Your task to perform on an android device: What's on my calendar today? Image 0: 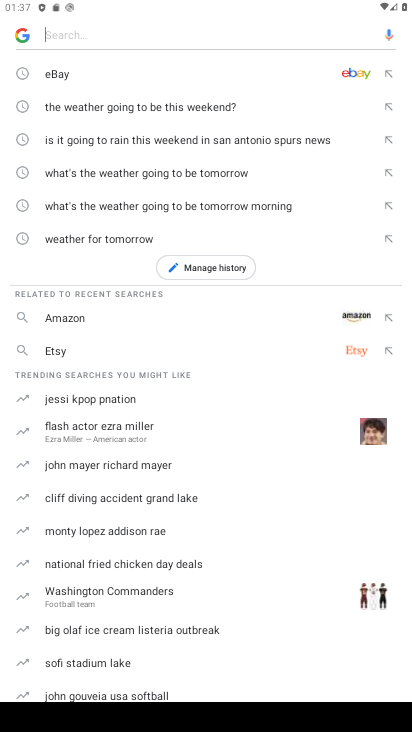
Step 0: press home button
Your task to perform on an android device: What's on my calendar today? Image 1: 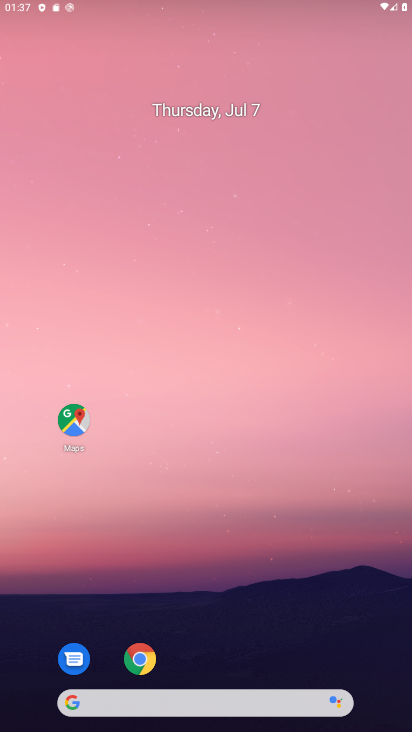
Step 1: drag from (230, 641) to (281, 113)
Your task to perform on an android device: What's on my calendar today? Image 2: 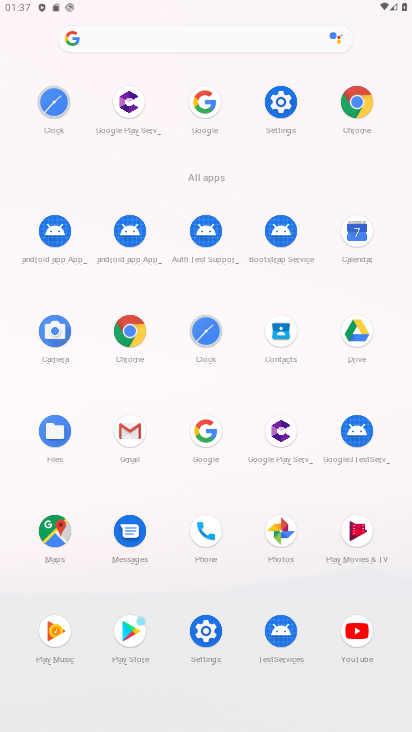
Step 2: click (354, 234)
Your task to perform on an android device: What's on my calendar today? Image 3: 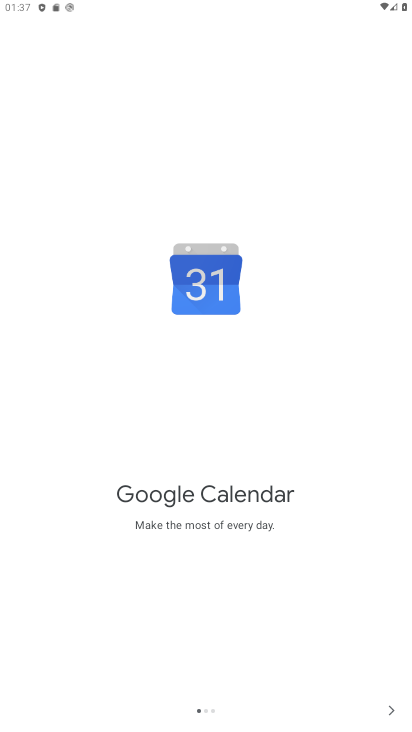
Step 3: click (390, 708)
Your task to perform on an android device: What's on my calendar today? Image 4: 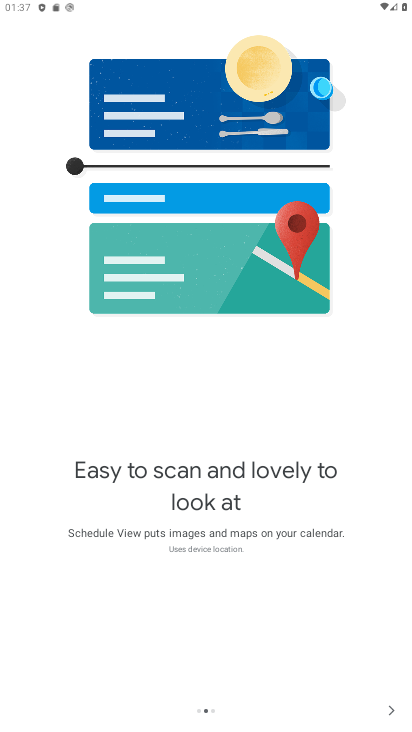
Step 4: click (392, 708)
Your task to perform on an android device: What's on my calendar today? Image 5: 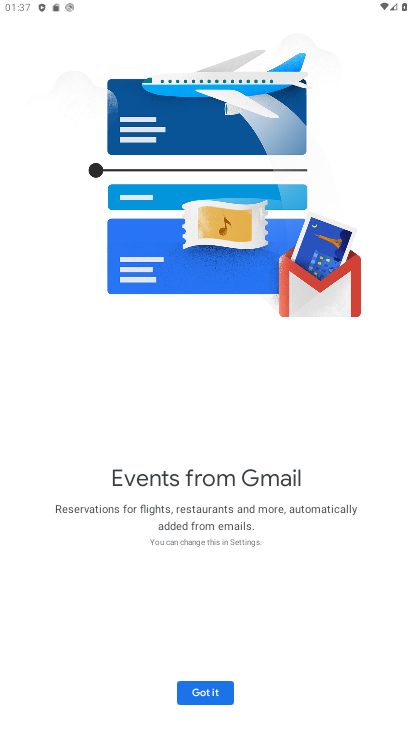
Step 5: click (186, 688)
Your task to perform on an android device: What's on my calendar today? Image 6: 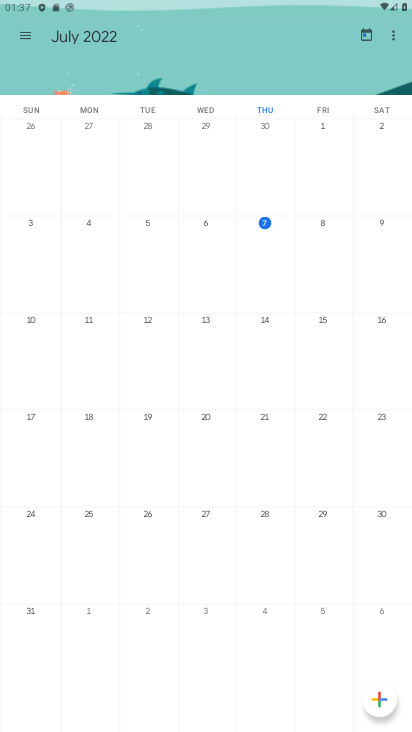
Step 6: click (264, 224)
Your task to perform on an android device: What's on my calendar today? Image 7: 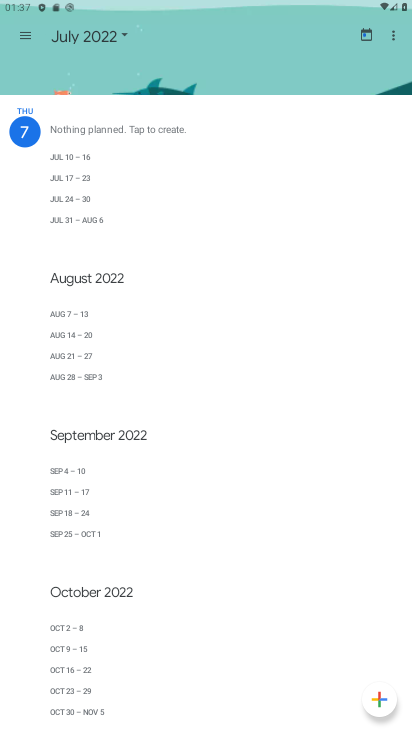
Step 7: task complete